Your task to perform on an android device: What's on the menu at Cheesecake Factory? Image 0: 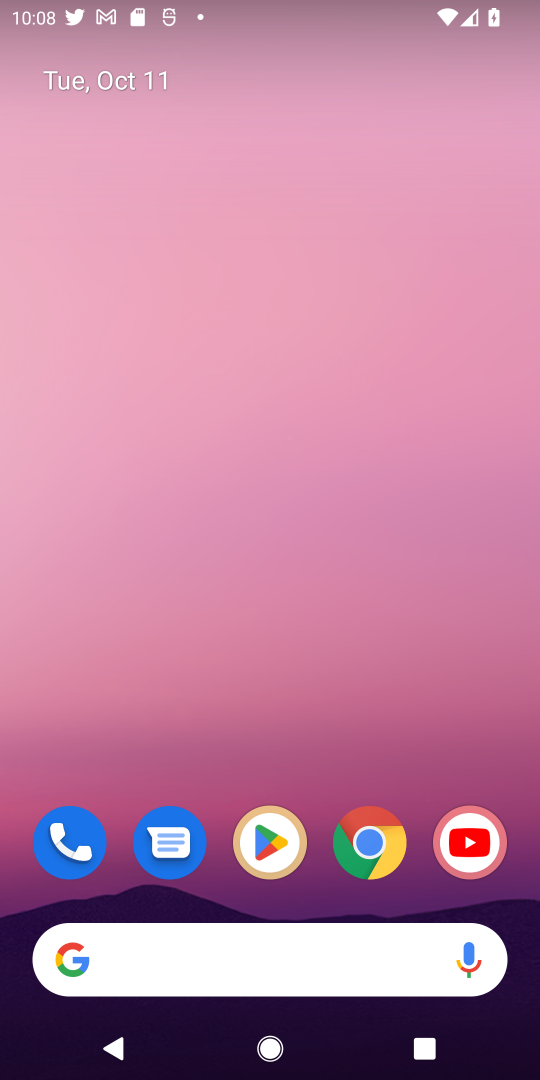
Step 0: click (375, 846)
Your task to perform on an android device: What's on the menu at Cheesecake Factory? Image 1: 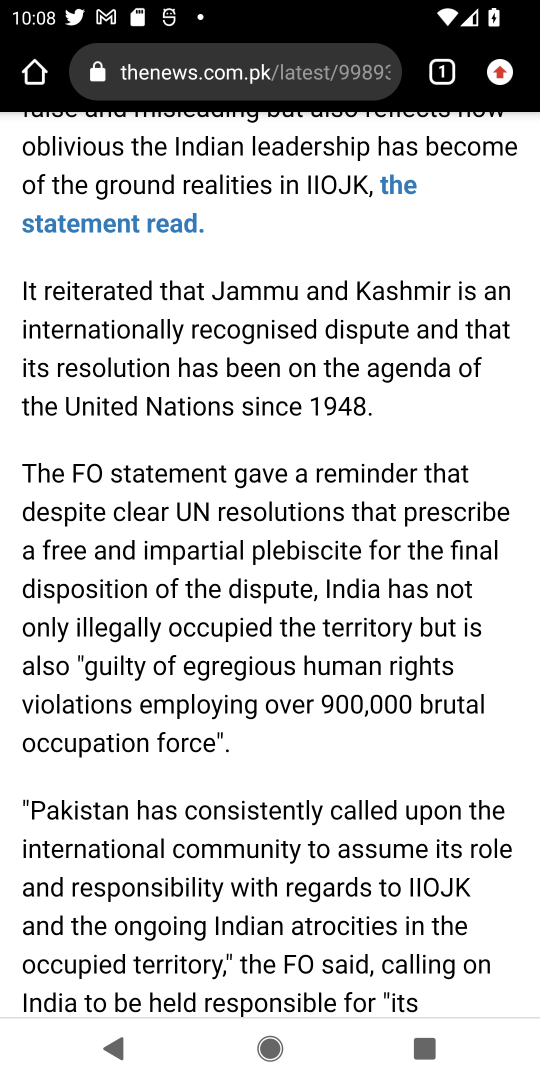
Step 1: click (204, 81)
Your task to perform on an android device: What's on the menu at Cheesecake Factory? Image 2: 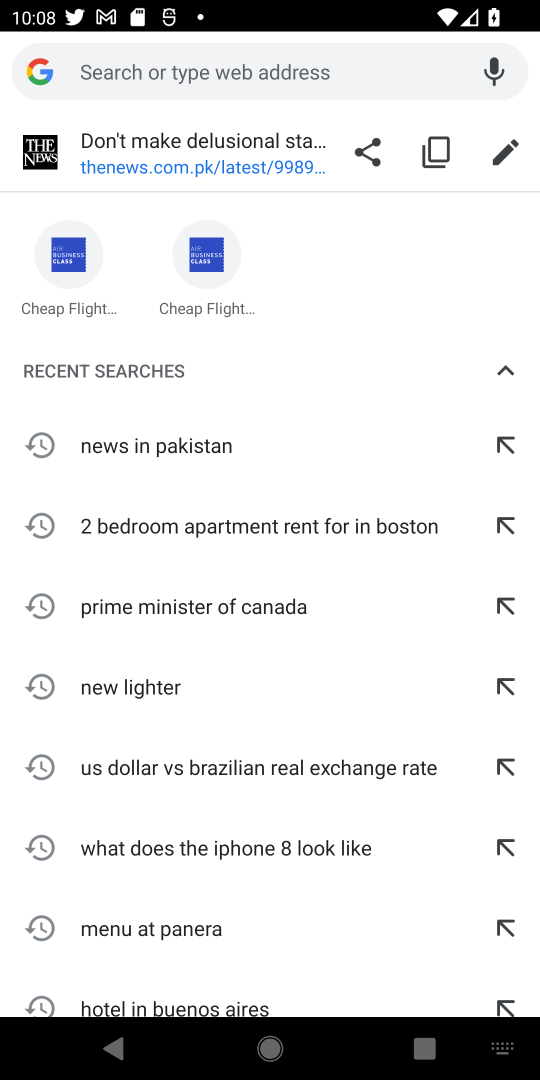
Step 2: type "cheesecake factory"
Your task to perform on an android device: What's on the menu at Cheesecake Factory? Image 3: 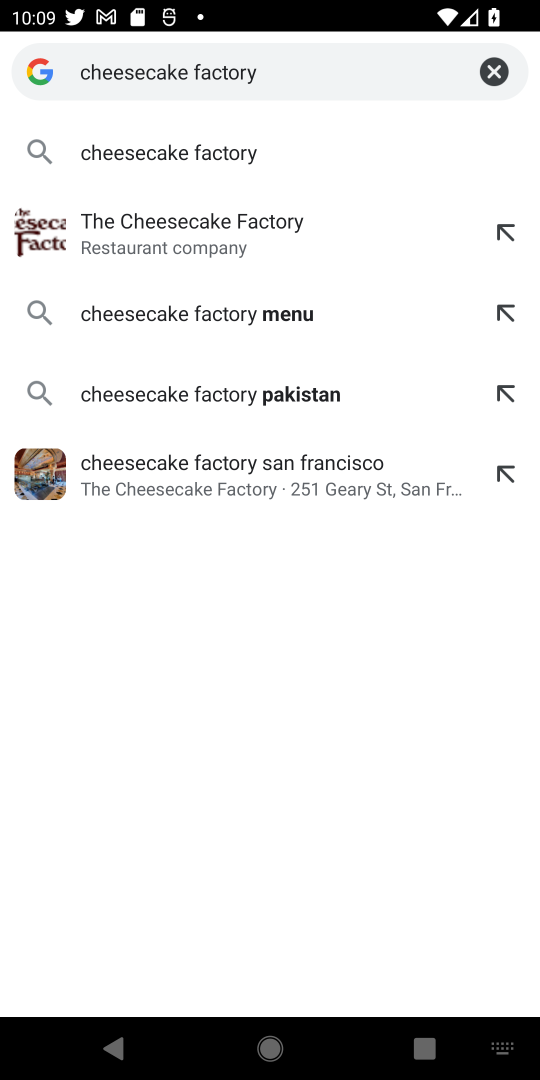
Step 3: click (170, 224)
Your task to perform on an android device: What's on the menu at Cheesecake Factory? Image 4: 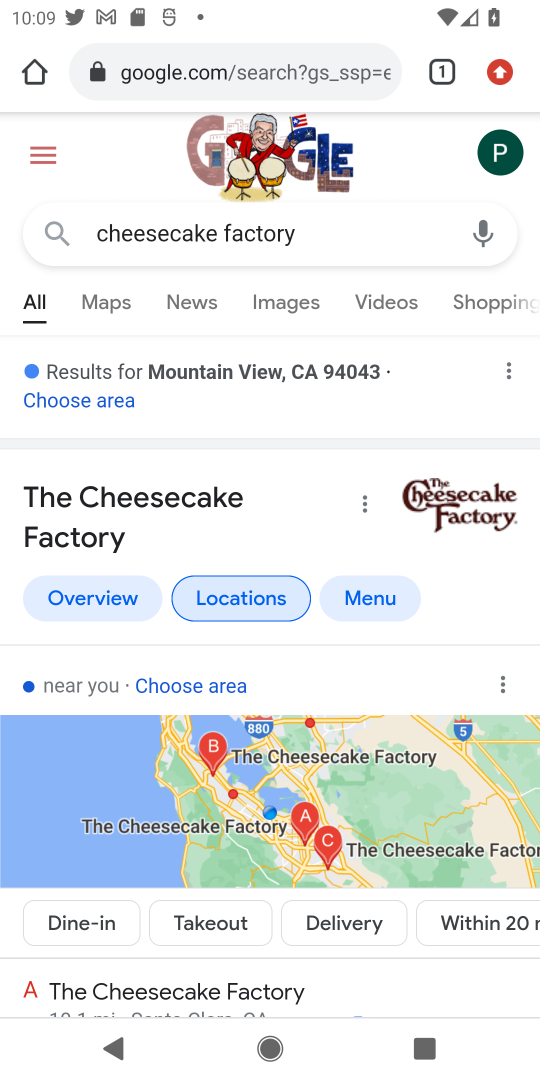
Step 4: drag from (115, 774) to (347, 194)
Your task to perform on an android device: What's on the menu at Cheesecake Factory? Image 5: 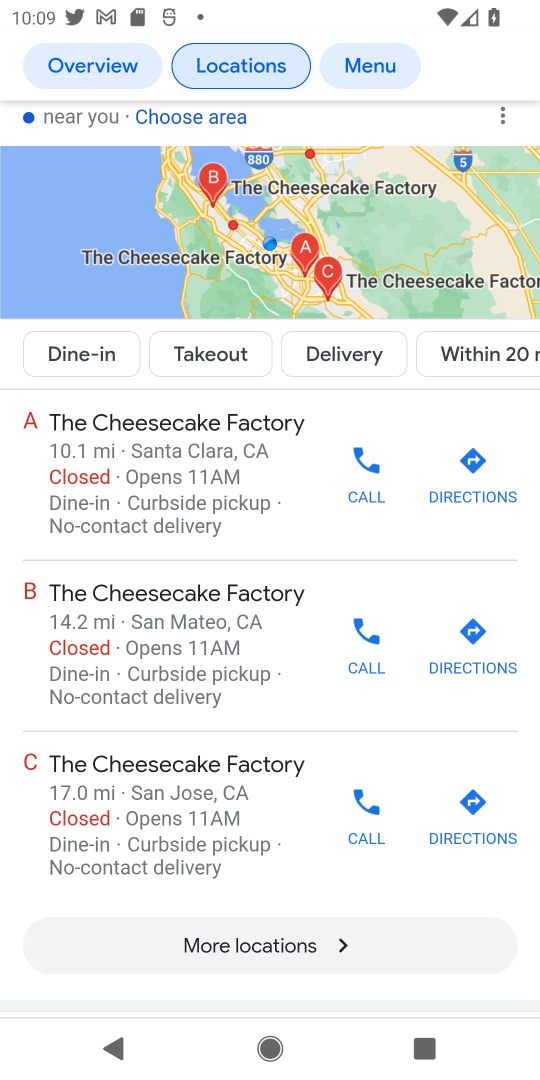
Step 5: click (150, 419)
Your task to perform on an android device: What's on the menu at Cheesecake Factory? Image 6: 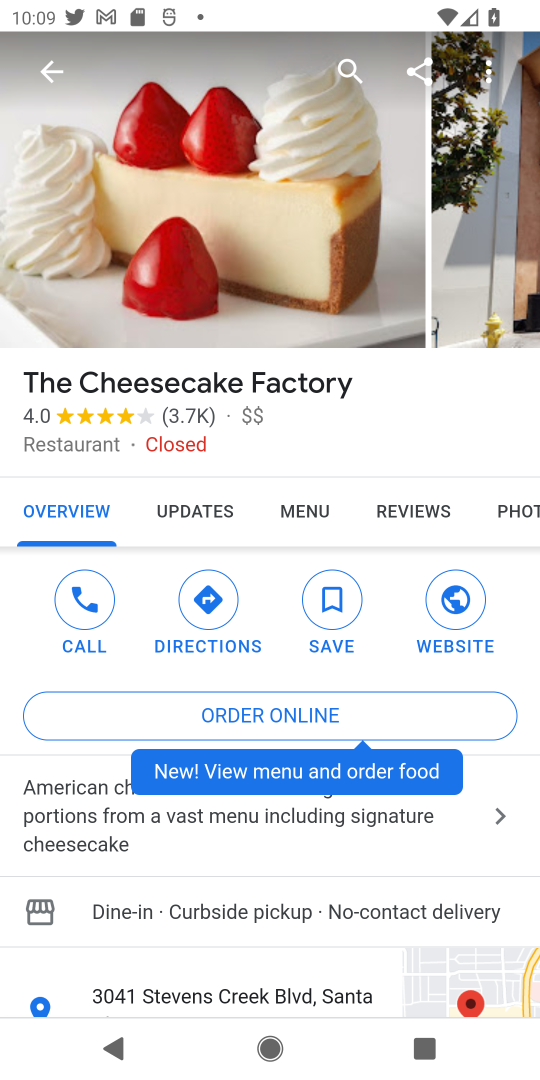
Step 6: click (311, 510)
Your task to perform on an android device: What's on the menu at Cheesecake Factory? Image 7: 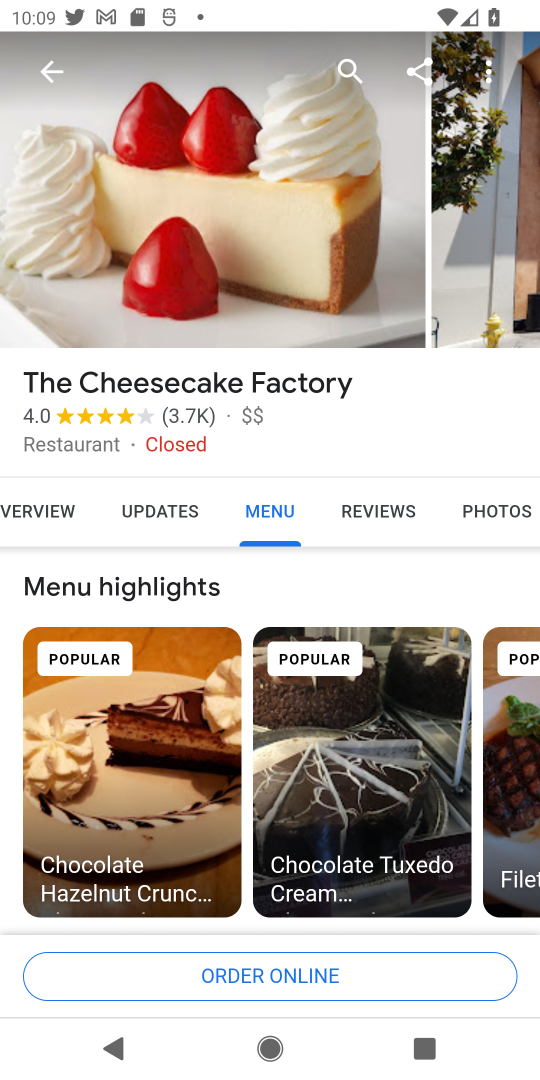
Step 7: drag from (179, 802) to (302, 359)
Your task to perform on an android device: What's on the menu at Cheesecake Factory? Image 8: 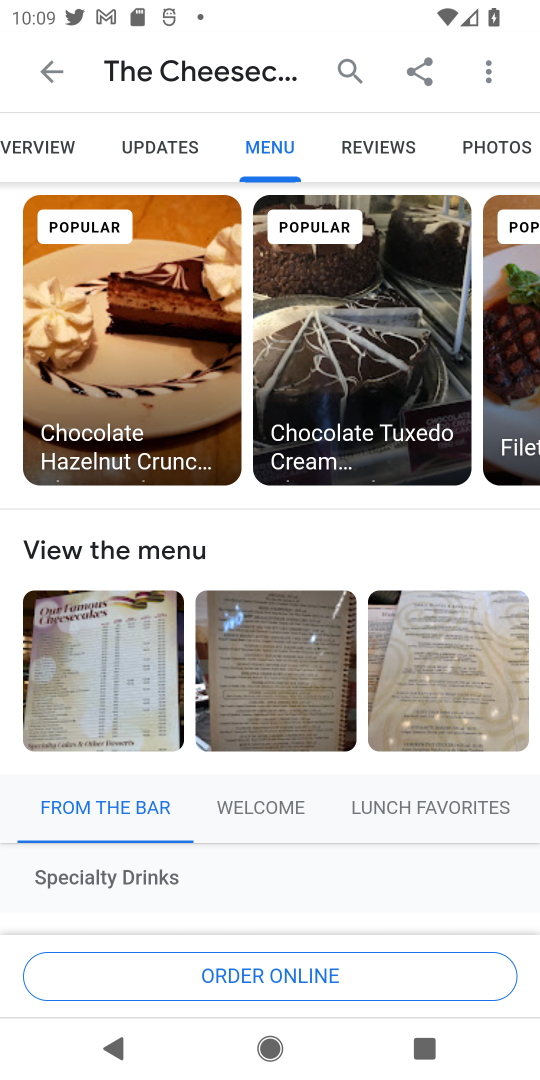
Step 8: click (63, 658)
Your task to perform on an android device: What's on the menu at Cheesecake Factory? Image 9: 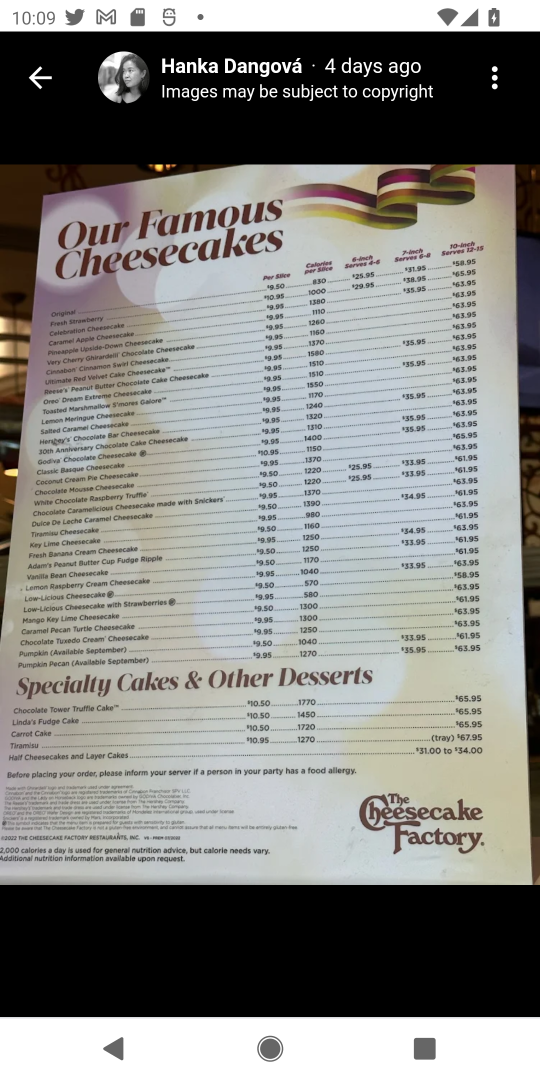
Step 9: task complete